Your task to perform on an android device: toggle pop-ups in chrome Image 0: 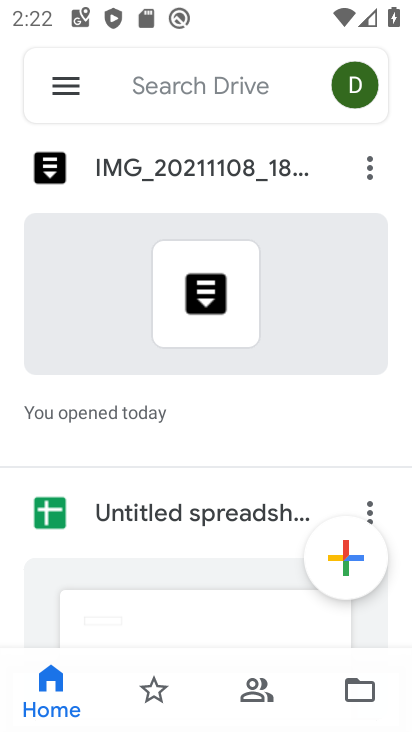
Step 0: press home button
Your task to perform on an android device: toggle pop-ups in chrome Image 1: 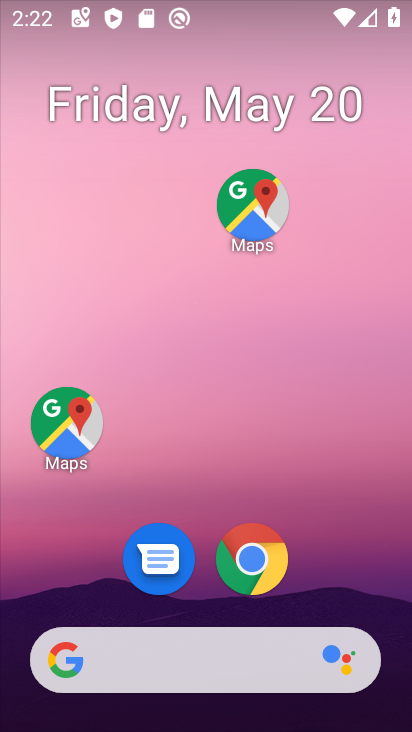
Step 1: click (251, 557)
Your task to perform on an android device: toggle pop-ups in chrome Image 2: 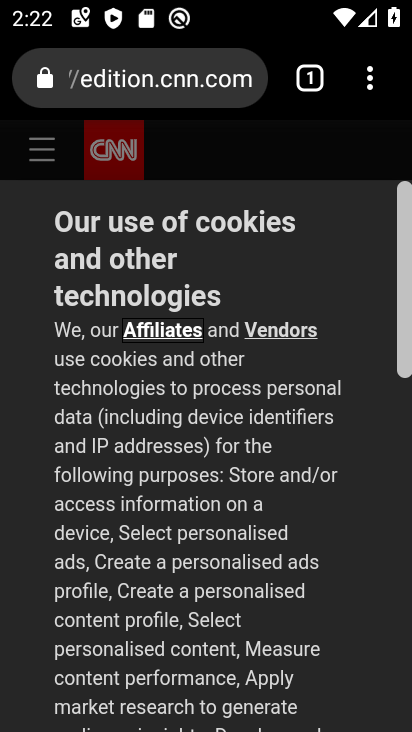
Step 2: click (371, 80)
Your task to perform on an android device: toggle pop-ups in chrome Image 3: 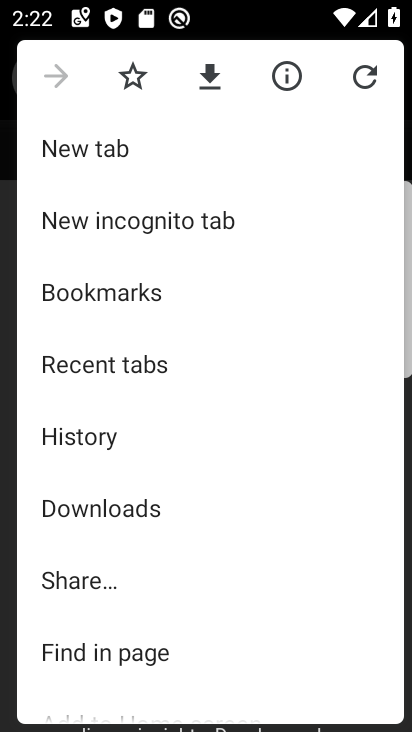
Step 3: drag from (144, 578) to (230, 321)
Your task to perform on an android device: toggle pop-ups in chrome Image 4: 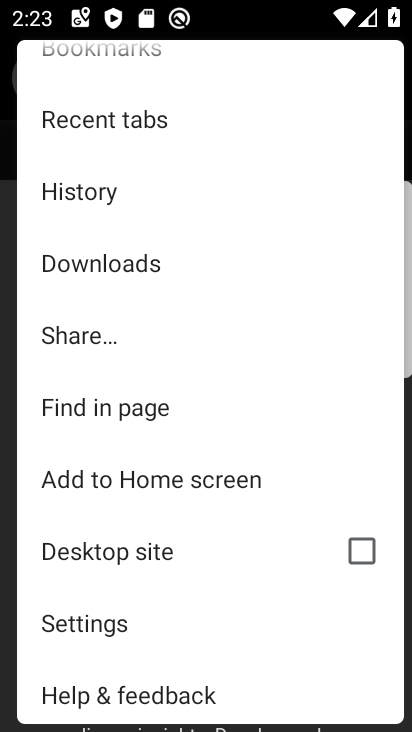
Step 4: click (115, 623)
Your task to perform on an android device: toggle pop-ups in chrome Image 5: 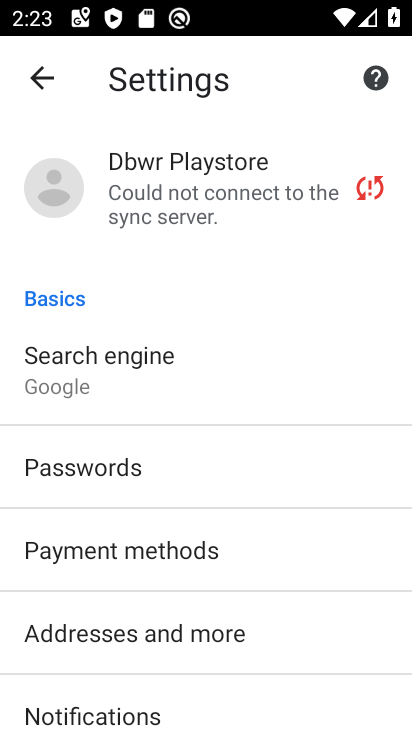
Step 5: drag from (167, 689) to (257, 447)
Your task to perform on an android device: toggle pop-ups in chrome Image 6: 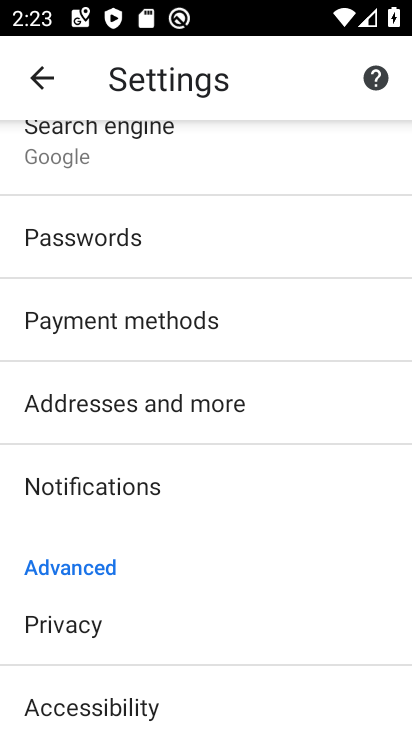
Step 6: drag from (166, 642) to (274, 332)
Your task to perform on an android device: toggle pop-ups in chrome Image 7: 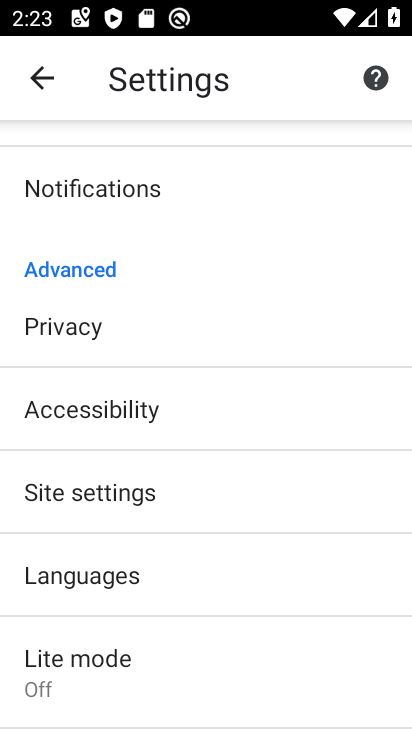
Step 7: click (94, 493)
Your task to perform on an android device: toggle pop-ups in chrome Image 8: 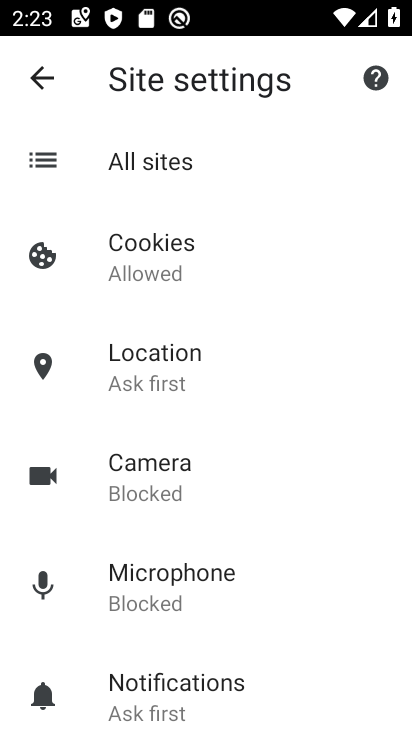
Step 8: drag from (170, 536) to (284, 335)
Your task to perform on an android device: toggle pop-ups in chrome Image 9: 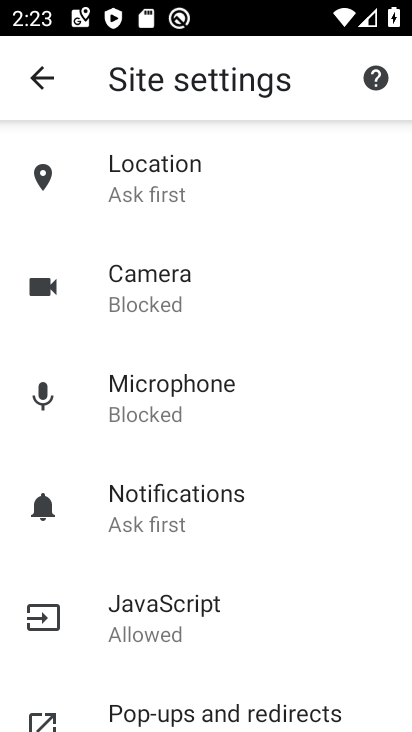
Step 9: drag from (214, 477) to (256, 382)
Your task to perform on an android device: toggle pop-ups in chrome Image 10: 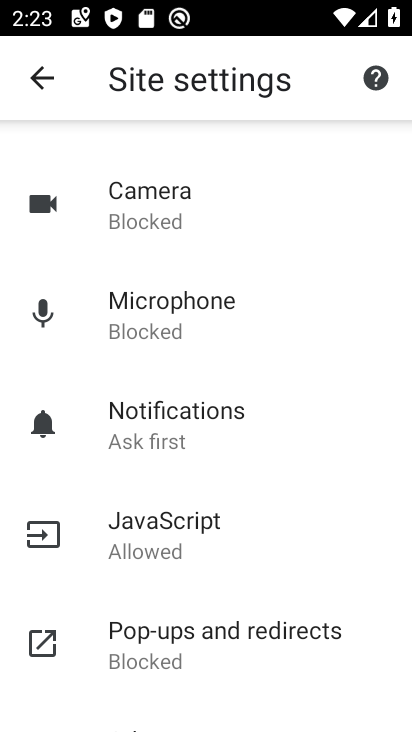
Step 10: click (184, 635)
Your task to perform on an android device: toggle pop-ups in chrome Image 11: 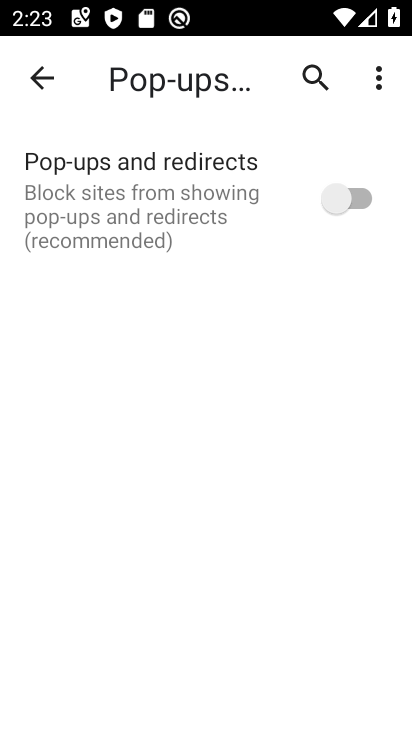
Step 11: click (349, 211)
Your task to perform on an android device: toggle pop-ups in chrome Image 12: 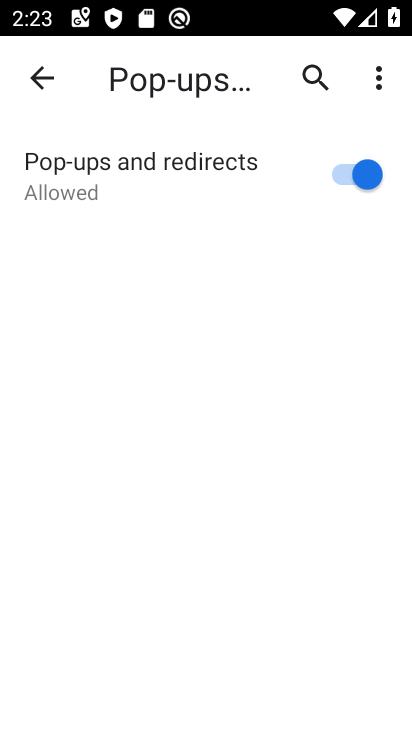
Step 12: task complete